Your task to perform on an android device: Open Chrome and go to the settings page Image 0: 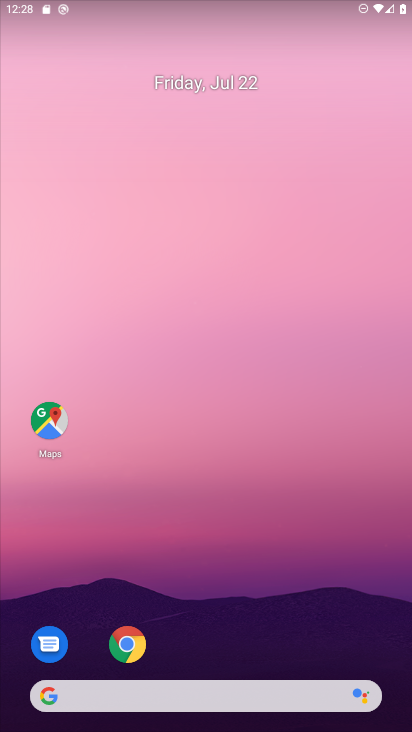
Step 0: click (124, 664)
Your task to perform on an android device: Open Chrome and go to the settings page Image 1: 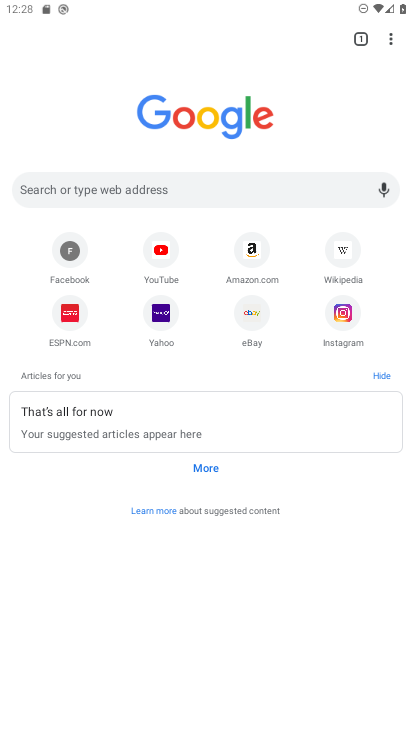
Step 1: click (400, 40)
Your task to perform on an android device: Open Chrome and go to the settings page Image 2: 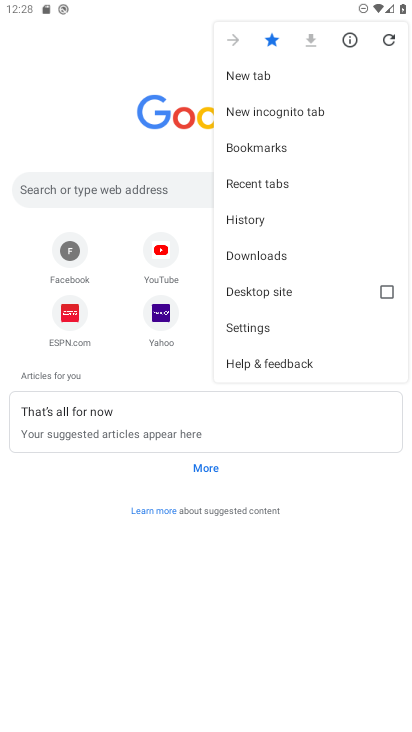
Step 2: click (234, 327)
Your task to perform on an android device: Open Chrome and go to the settings page Image 3: 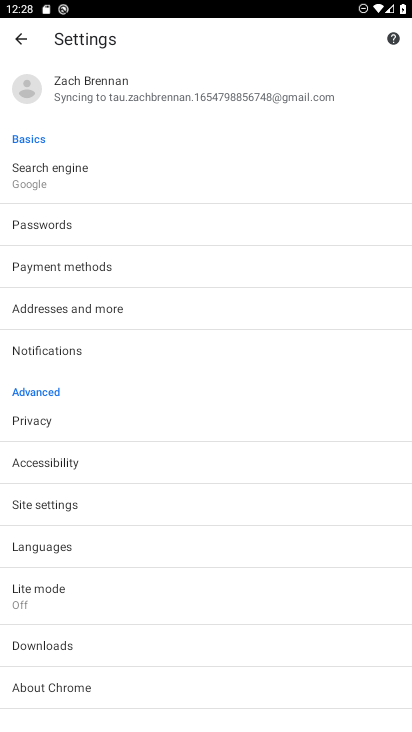
Step 3: task complete